Your task to perform on an android device: manage bookmarks in the chrome app Image 0: 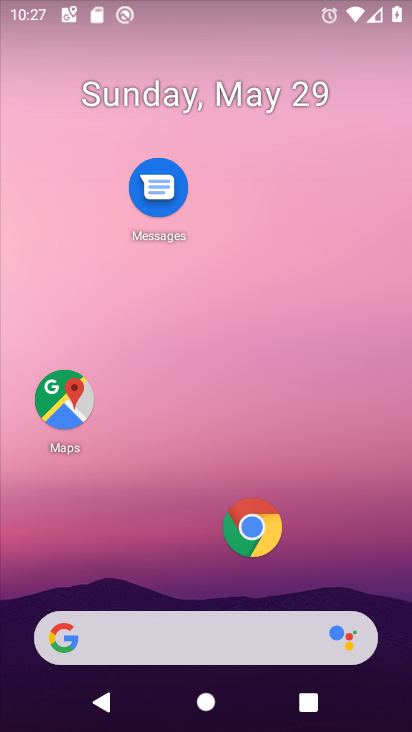
Step 0: click (247, 521)
Your task to perform on an android device: manage bookmarks in the chrome app Image 1: 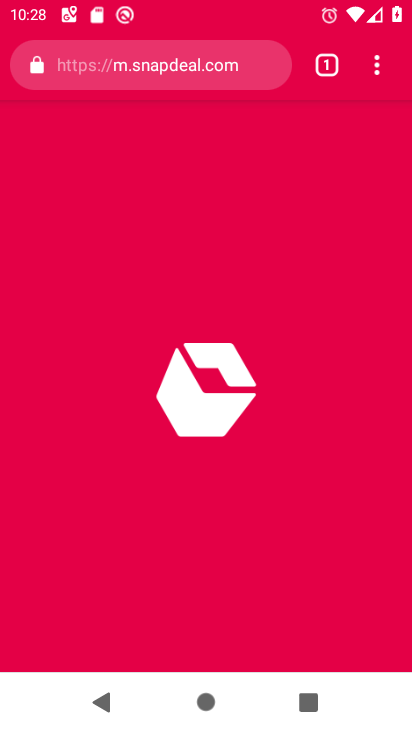
Step 1: click (381, 64)
Your task to perform on an android device: manage bookmarks in the chrome app Image 2: 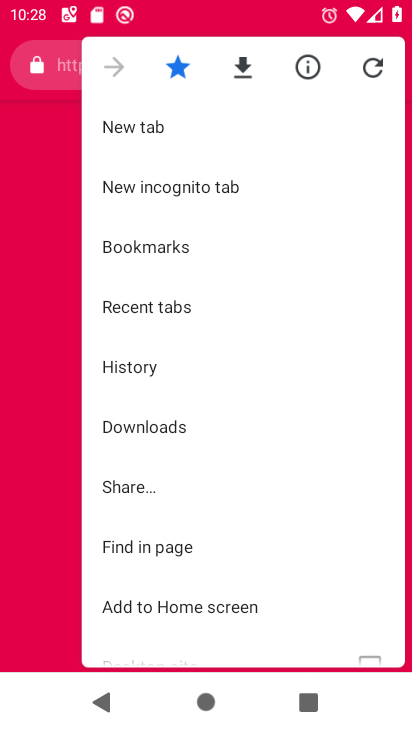
Step 2: click (210, 248)
Your task to perform on an android device: manage bookmarks in the chrome app Image 3: 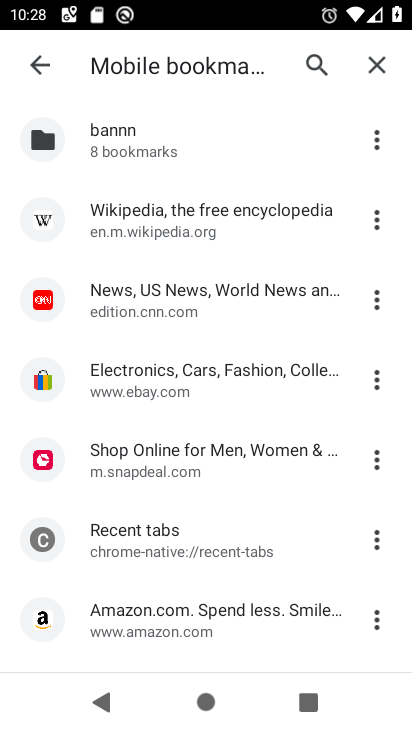
Step 3: click (193, 243)
Your task to perform on an android device: manage bookmarks in the chrome app Image 4: 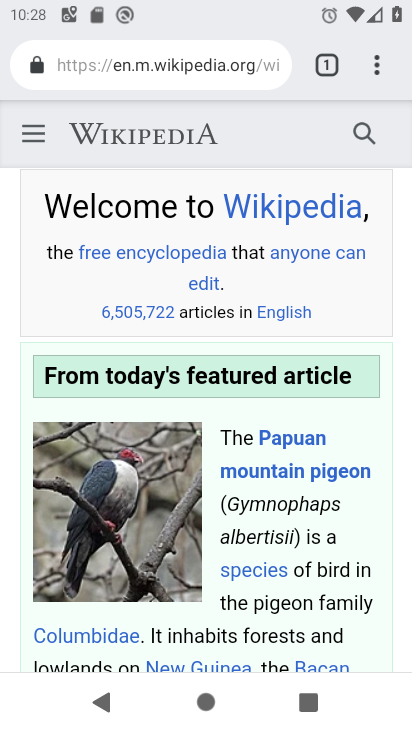
Step 4: click (384, 62)
Your task to perform on an android device: manage bookmarks in the chrome app Image 5: 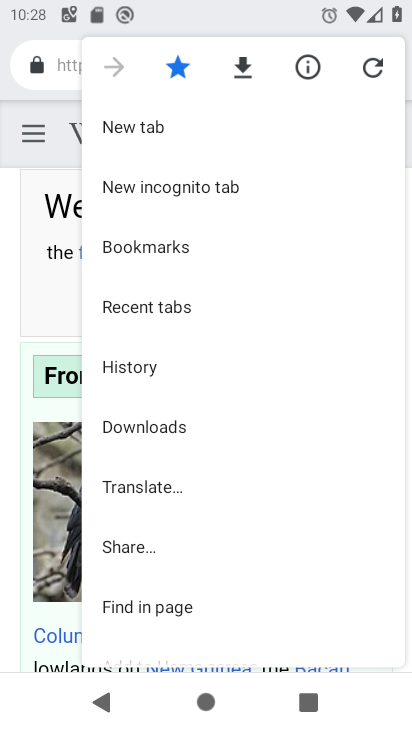
Step 5: click (199, 238)
Your task to perform on an android device: manage bookmarks in the chrome app Image 6: 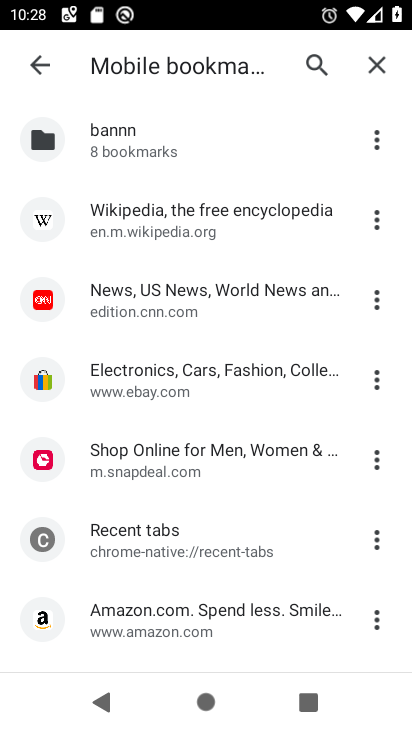
Step 6: click (368, 195)
Your task to perform on an android device: manage bookmarks in the chrome app Image 7: 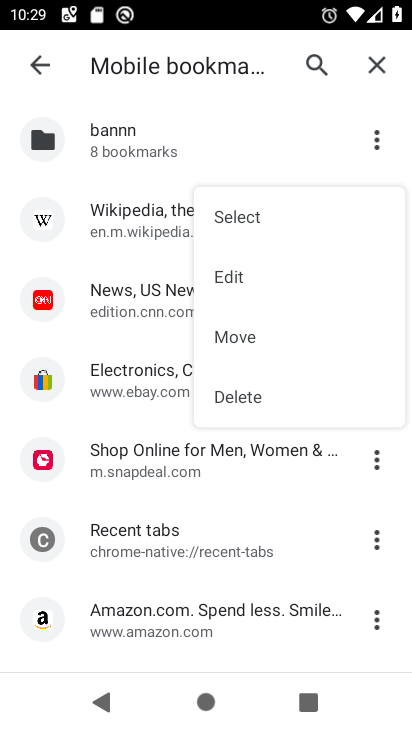
Step 7: click (257, 389)
Your task to perform on an android device: manage bookmarks in the chrome app Image 8: 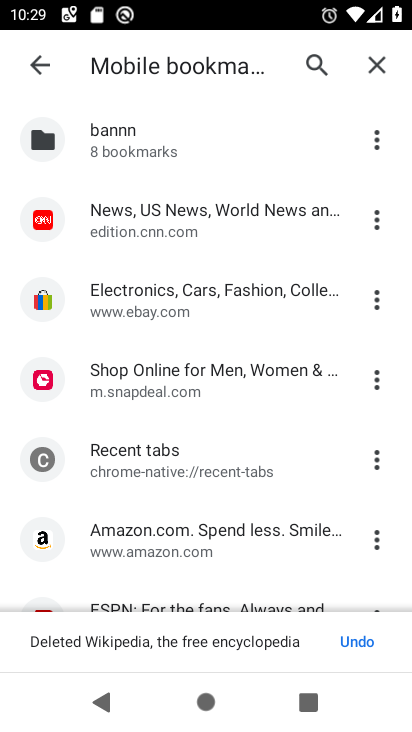
Step 8: task complete